Your task to perform on an android device: install app "File Manager" Image 0: 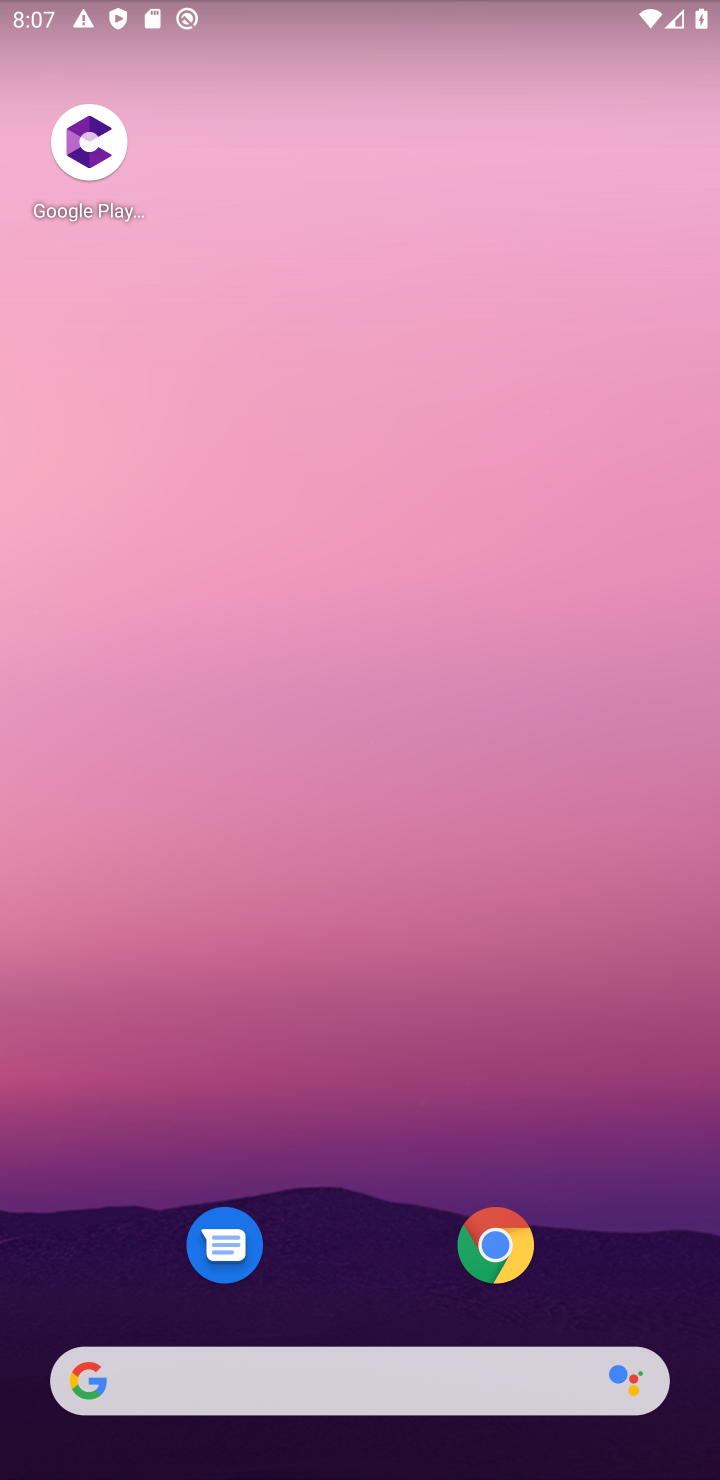
Step 0: drag from (343, 1248) to (469, 108)
Your task to perform on an android device: install app "File Manager" Image 1: 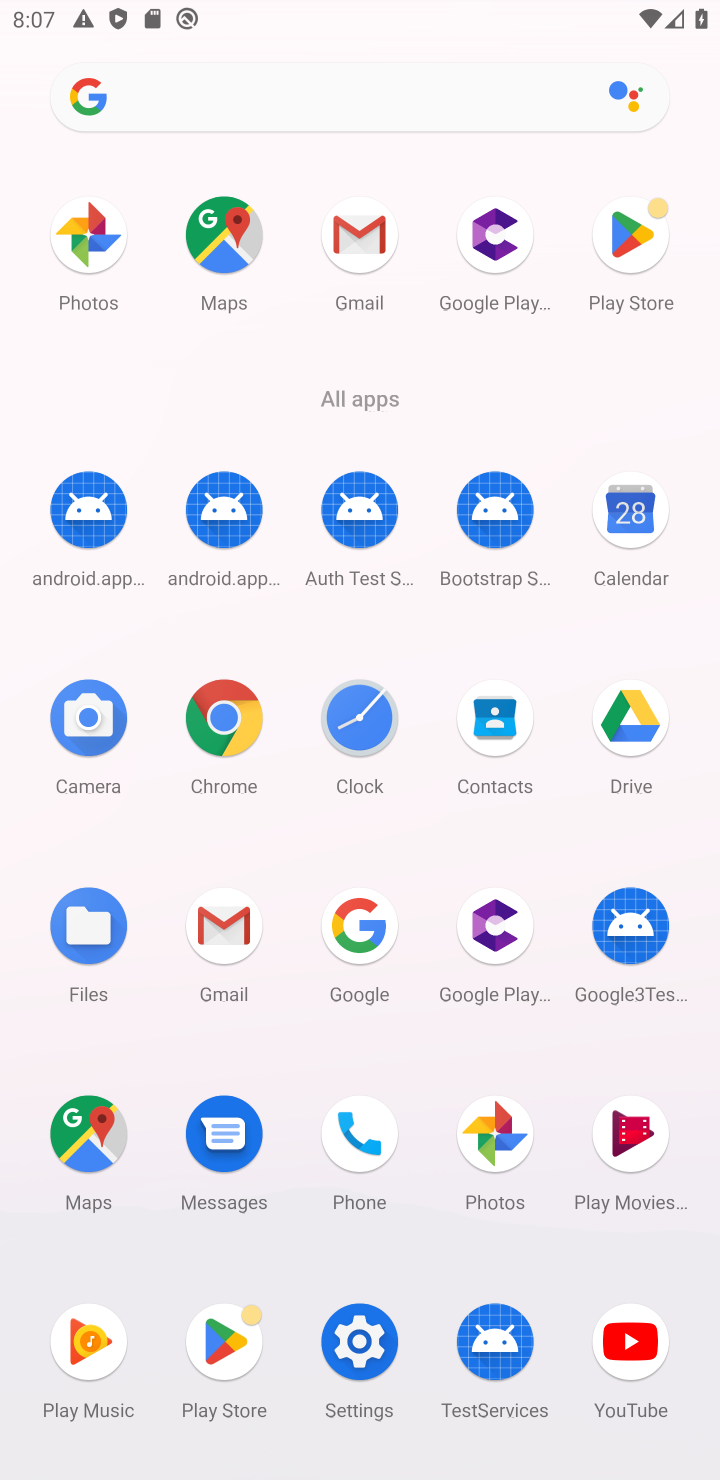
Step 1: click (650, 221)
Your task to perform on an android device: install app "File Manager" Image 2: 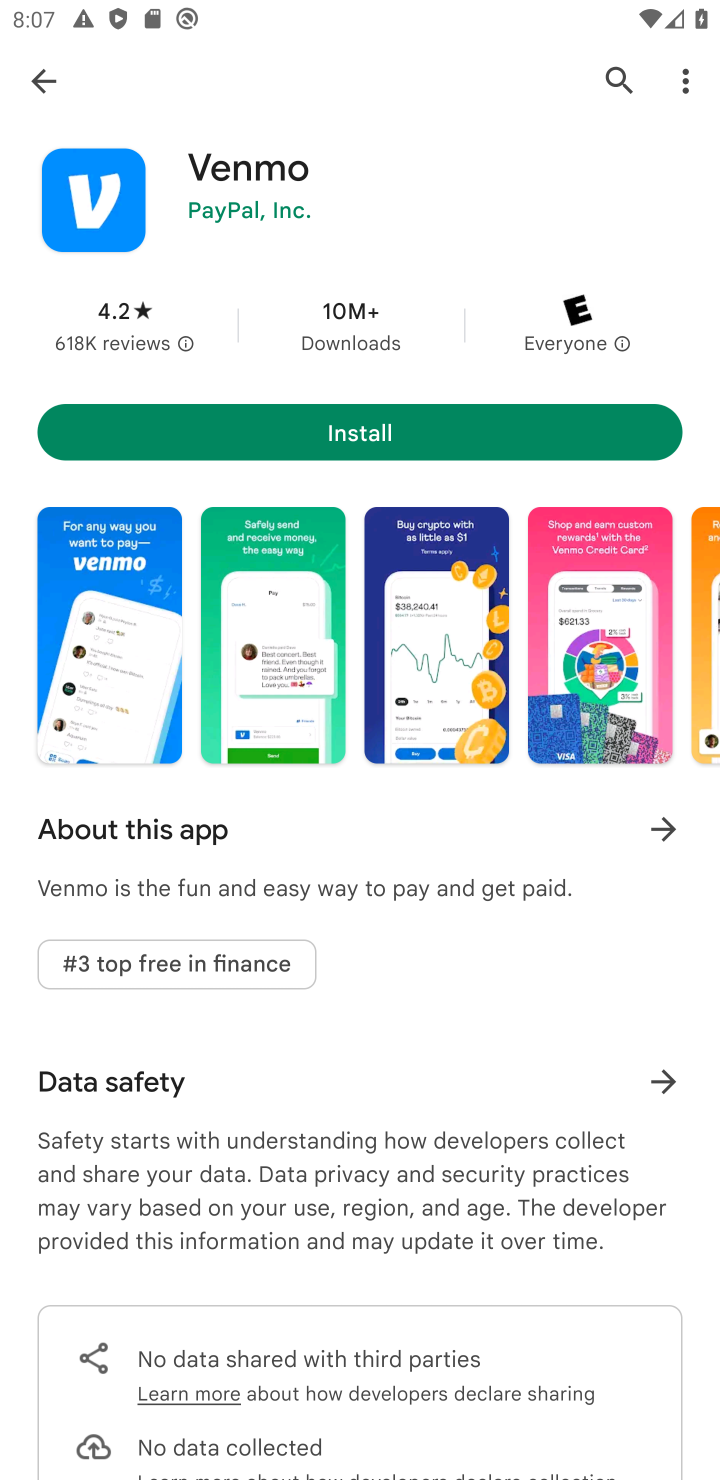
Step 2: click (603, 77)
Your task to perform on an android device: install app "File Manager" Image 3: 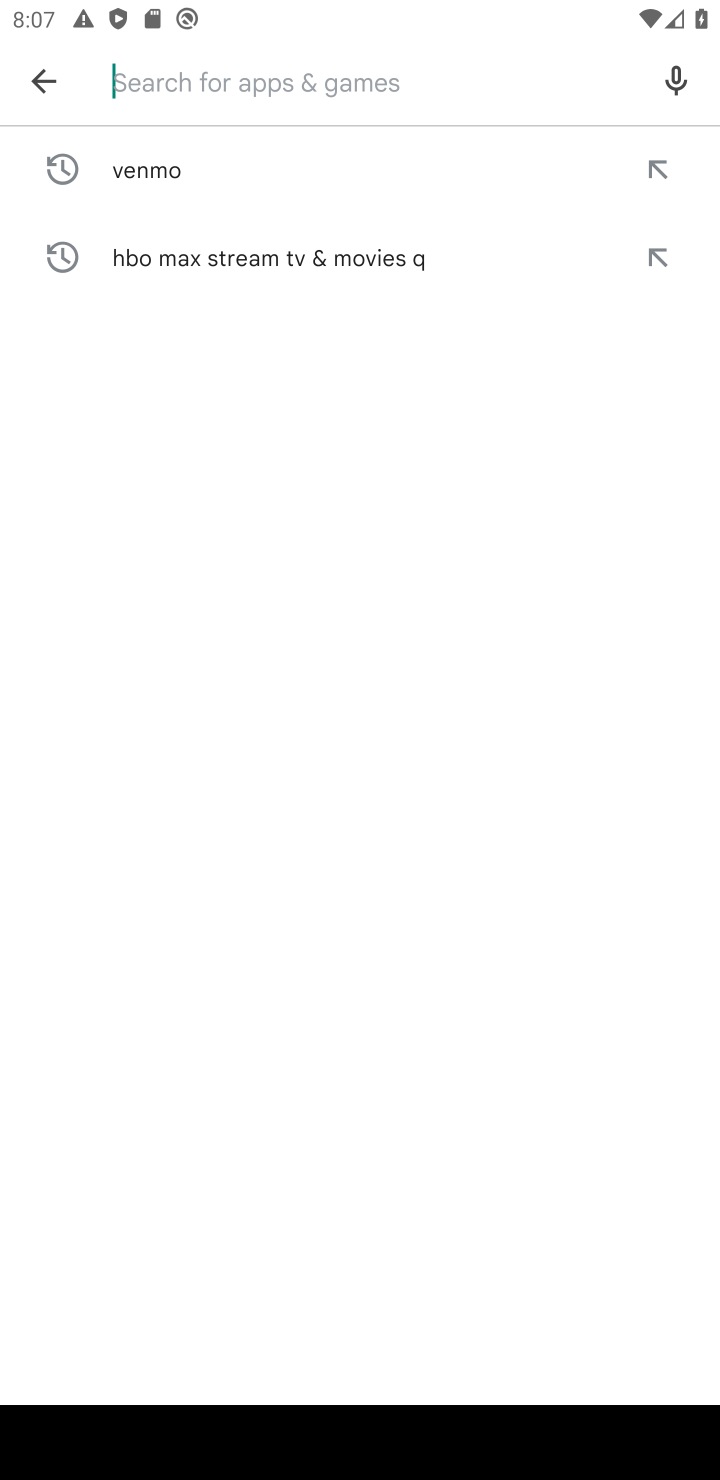
Step 3: type "file manager"
Your task to perform on an android device: install app "File Manager" Image 4: 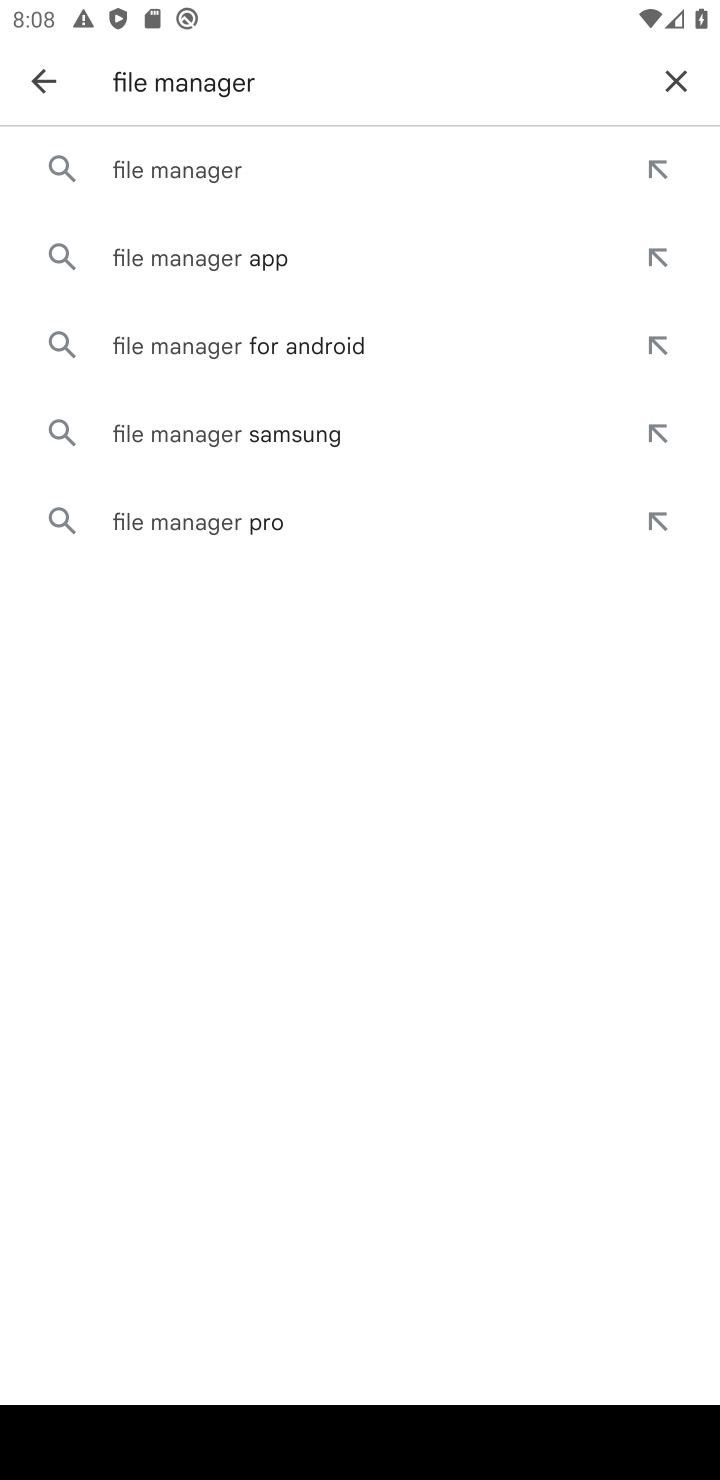
Step 4: click (181, 180)
Your task to perform on an android device: install app "File Manager" Image 5: 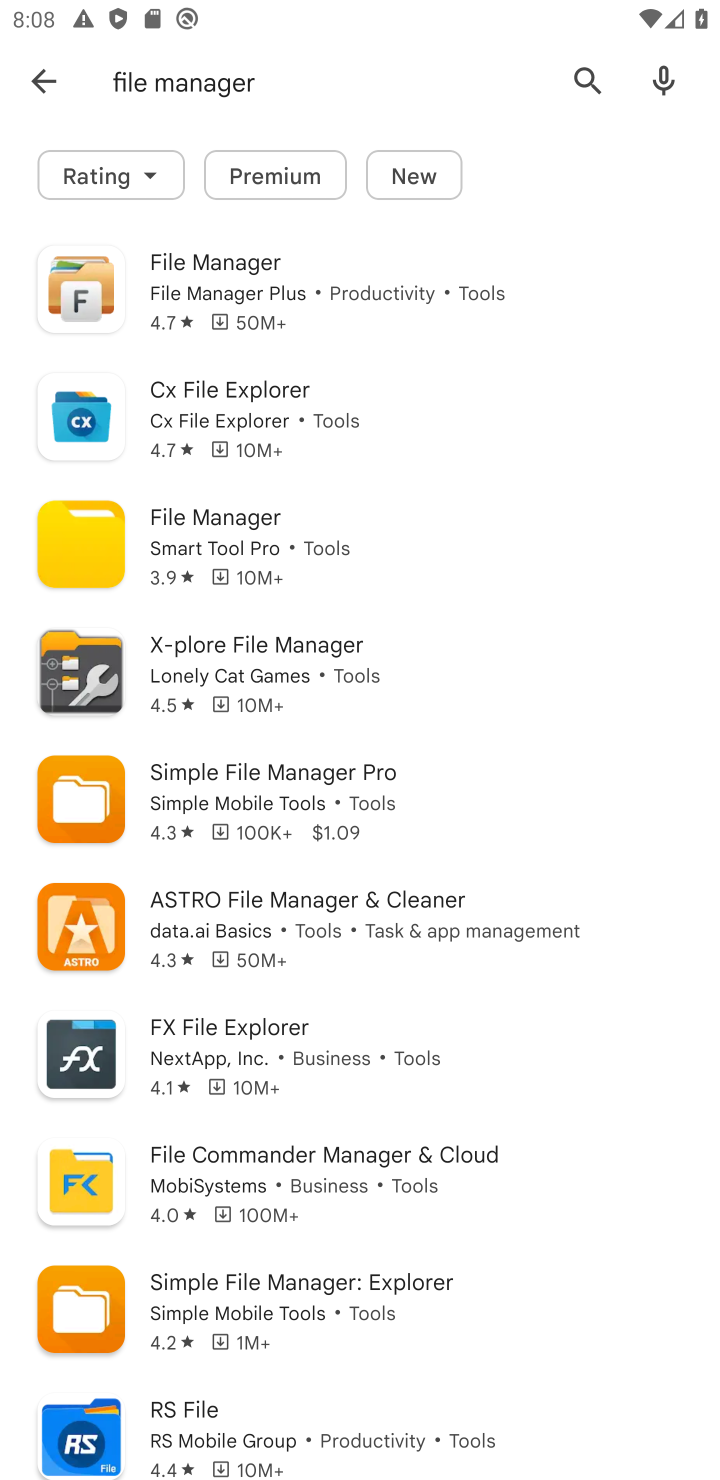
Step 5: click (293, 284)
Your task to perform on an android device: install app "File Manager" Image 6: 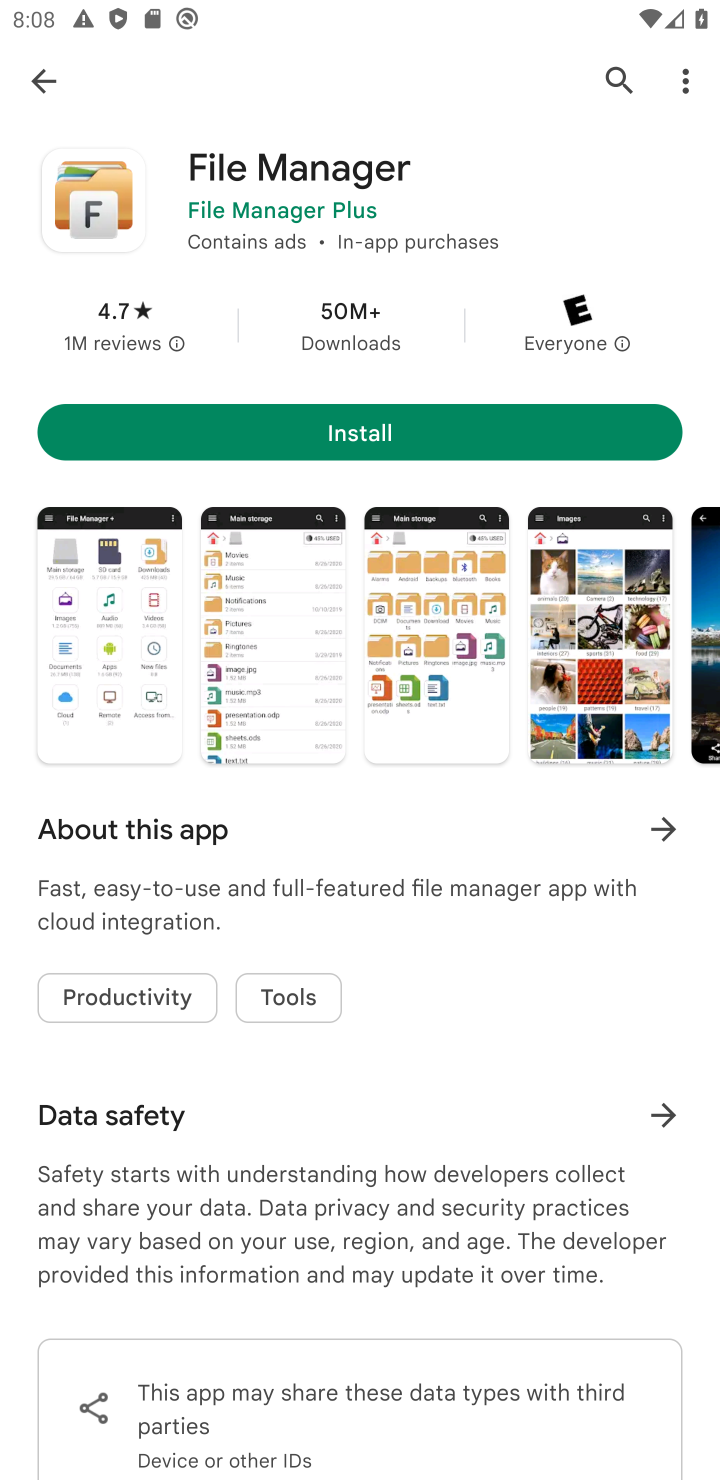
Step 6: click (379, 420)
Your task to perform on an android device: install app "File Manager" Image 7: 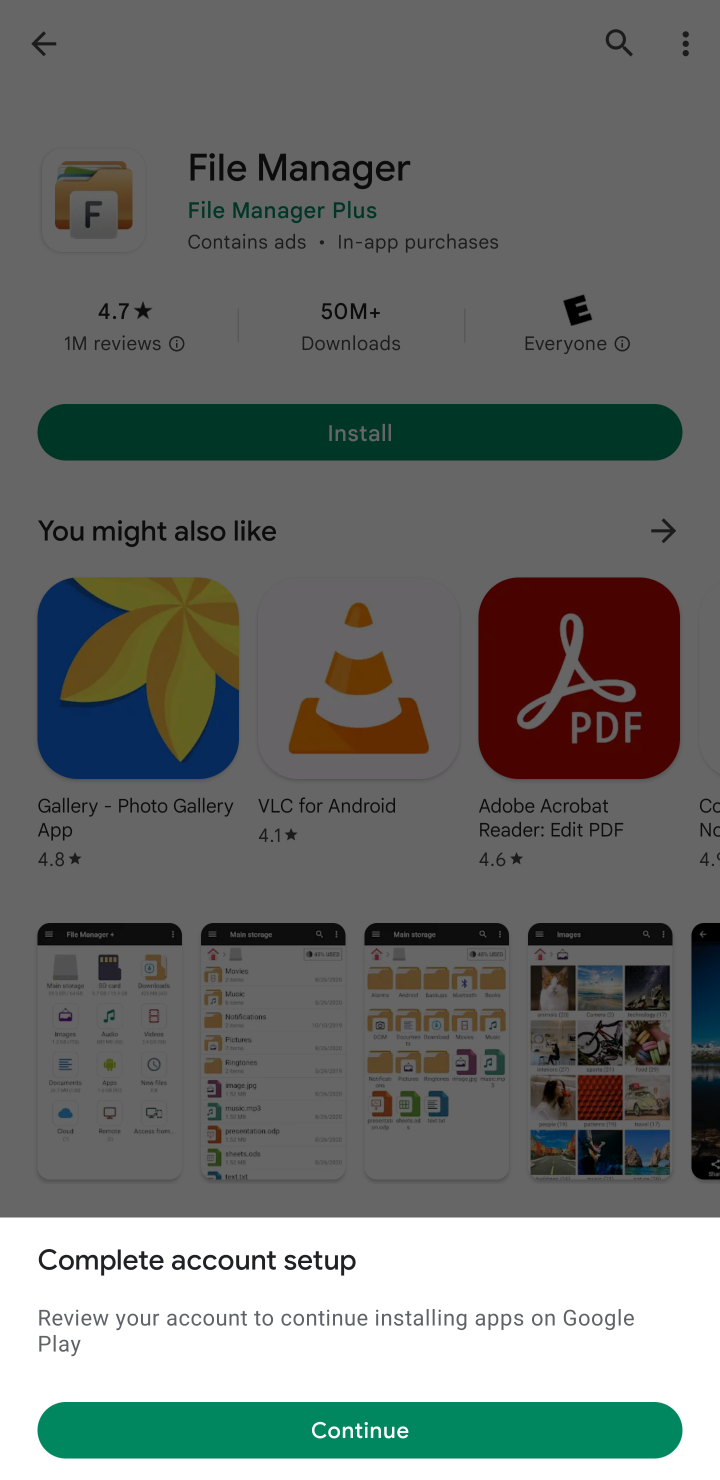
Step 7: click (446, 1438)
Your task to perform on an android device: install app "File Manager" Image 8: 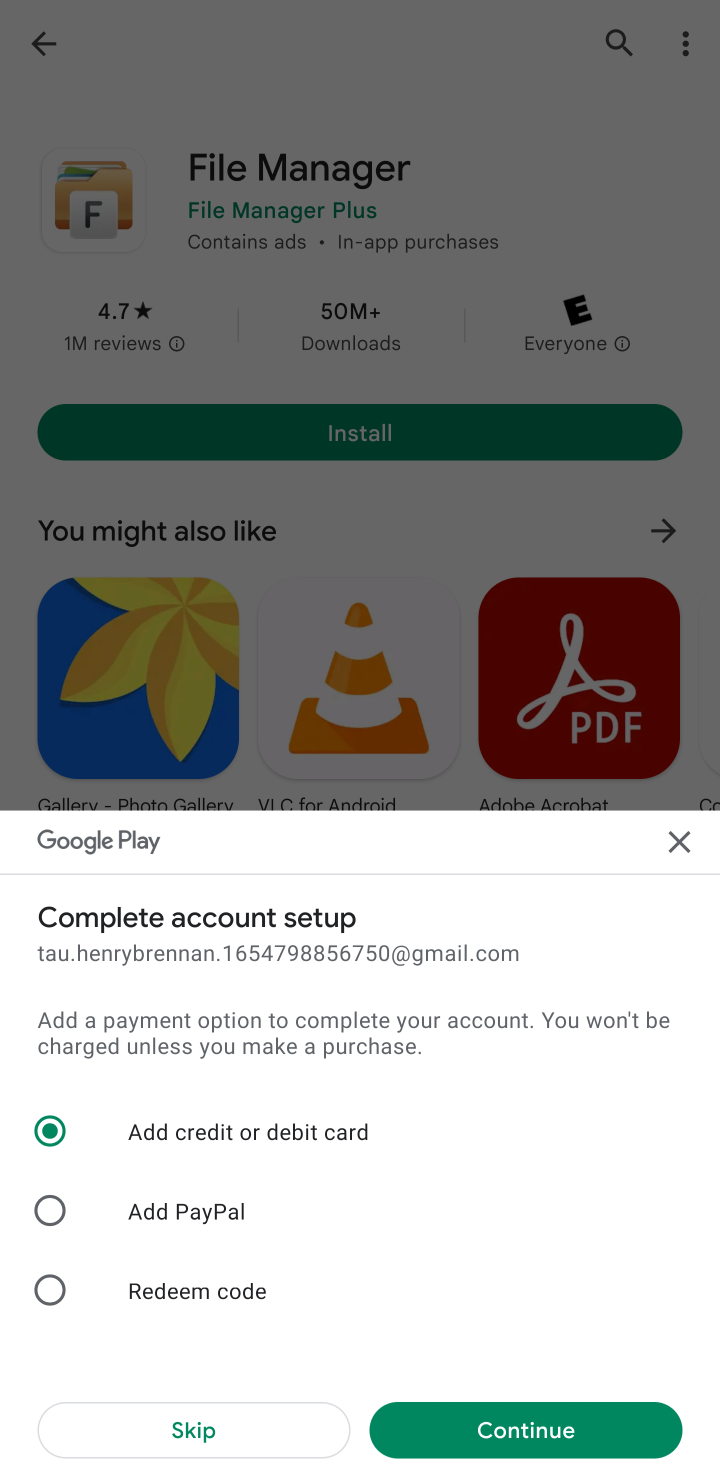
Step 8: click (190, 1420)
Your task to perform on an android device: install app "File Manager" Image 9: 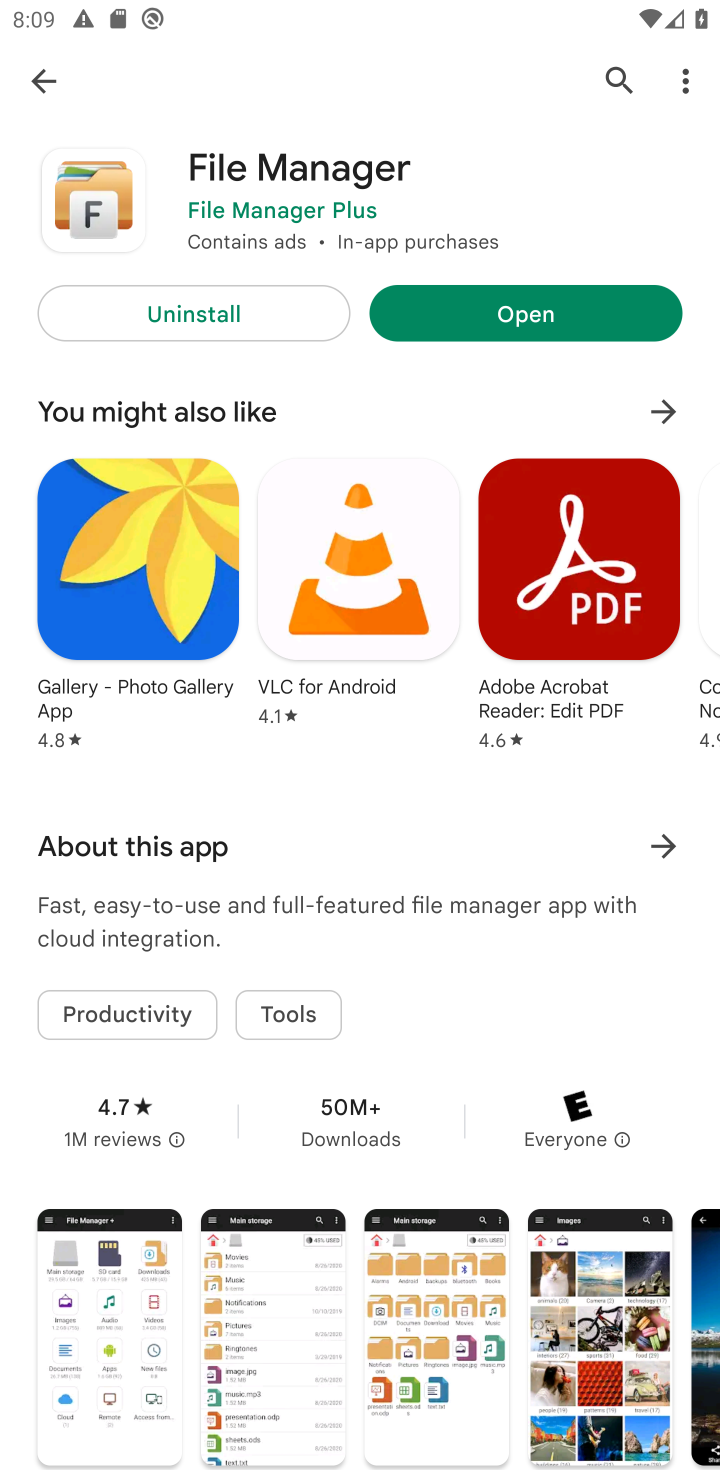
Step 9: task complete